Your task to perform on an android device: change the clock display to analog Image 0: 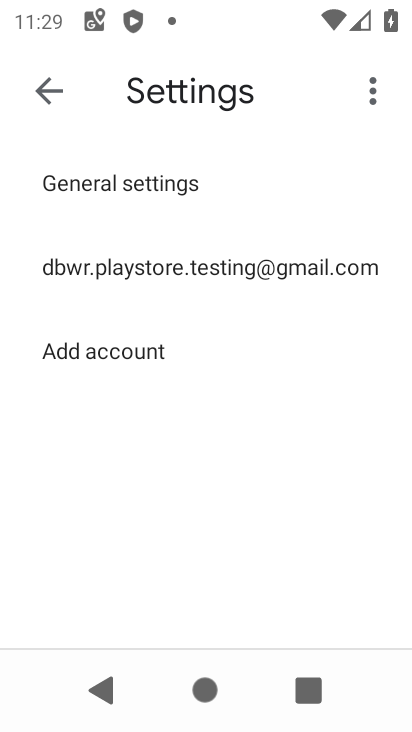
Step 0: press home button
Your task to perform on an android device: change the clock display to analog Image 1: 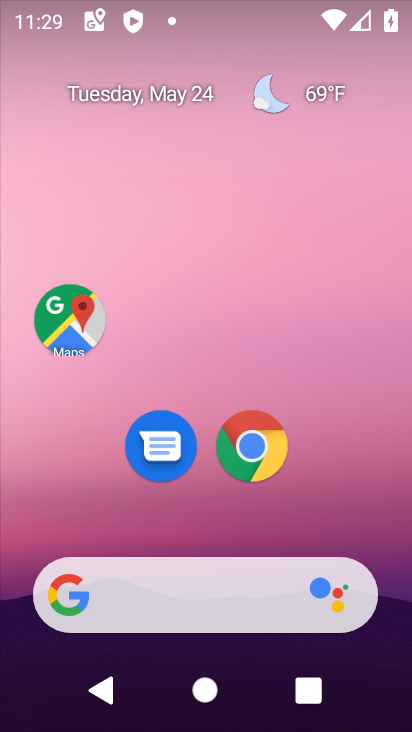
Step 1: drag from (153, 550) to (292, 17)
Your task to perform on an android device: change the clock display to analog Image 2: 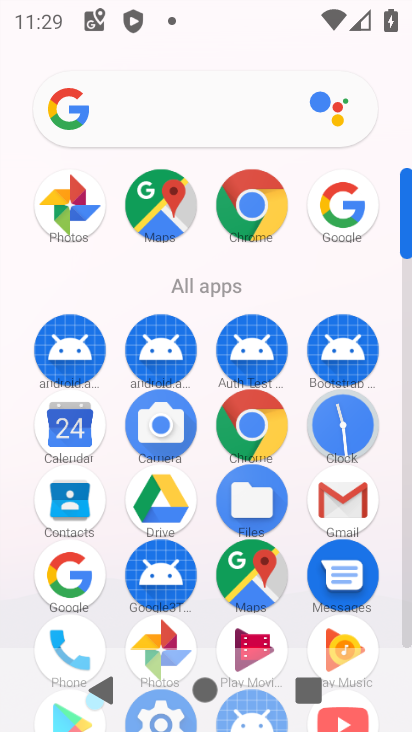
Step 2: click (351, 420)
Your task to perform on an android device: change the clock display to analog Image 3: 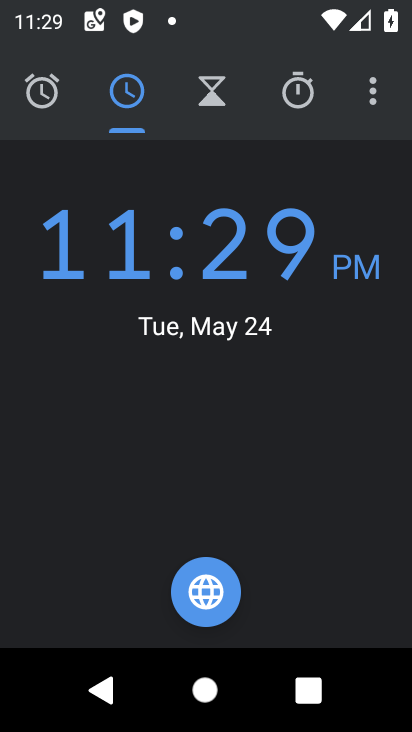
Step 3: click (375, 105)
Your task to perform on an android device: change the clock display to analog Image 4: 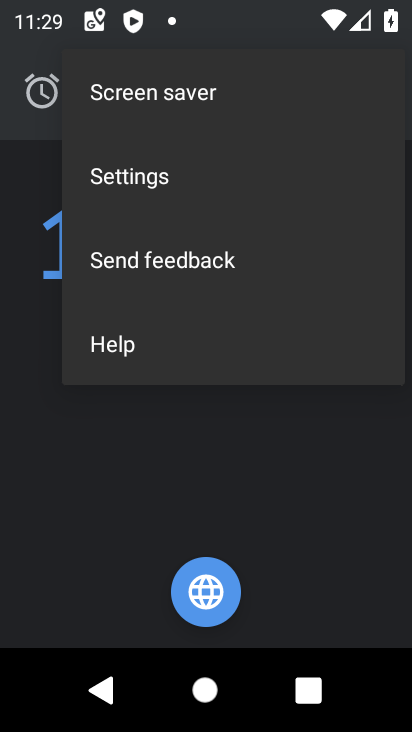
Step 4: click (140, 179)
Your task to perform on an android device: change the clock display to analog Image 5: 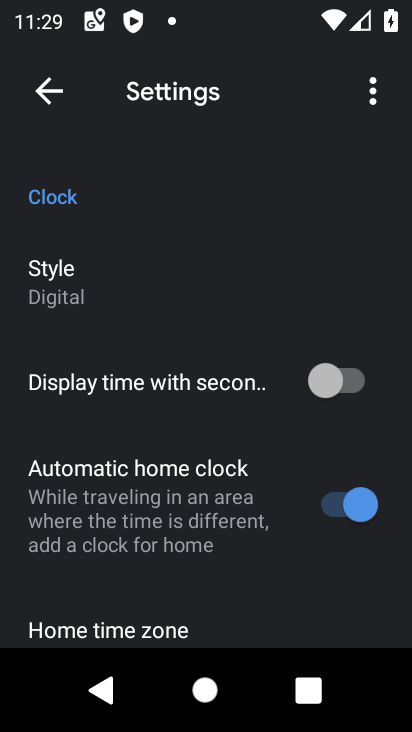
Step 5: click (45, 298)
Your task to perform on an android device: change the clock display to analog Image 6: 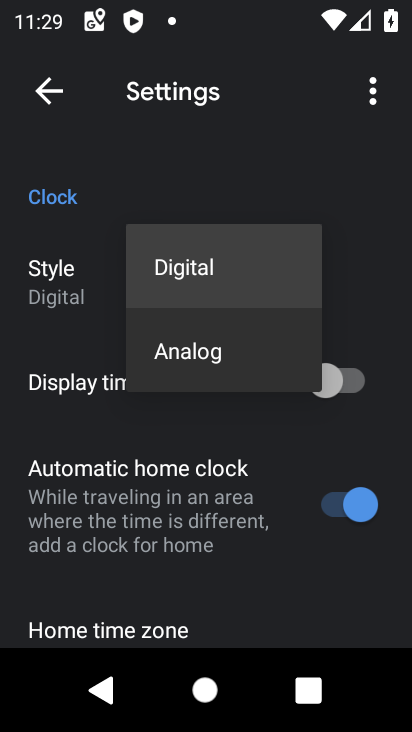
Step 6: click (171, 359)
Your task to perform on an android device: change the clock display to analog Image 7: 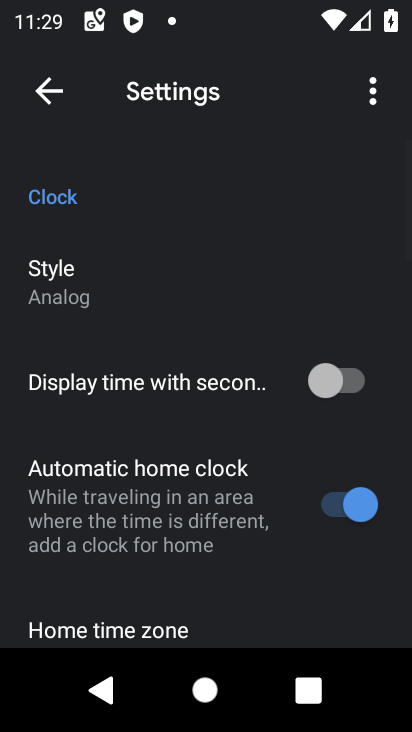
Step 7: task complete